Your task to perform on an android device: Open Android settings Image 0: 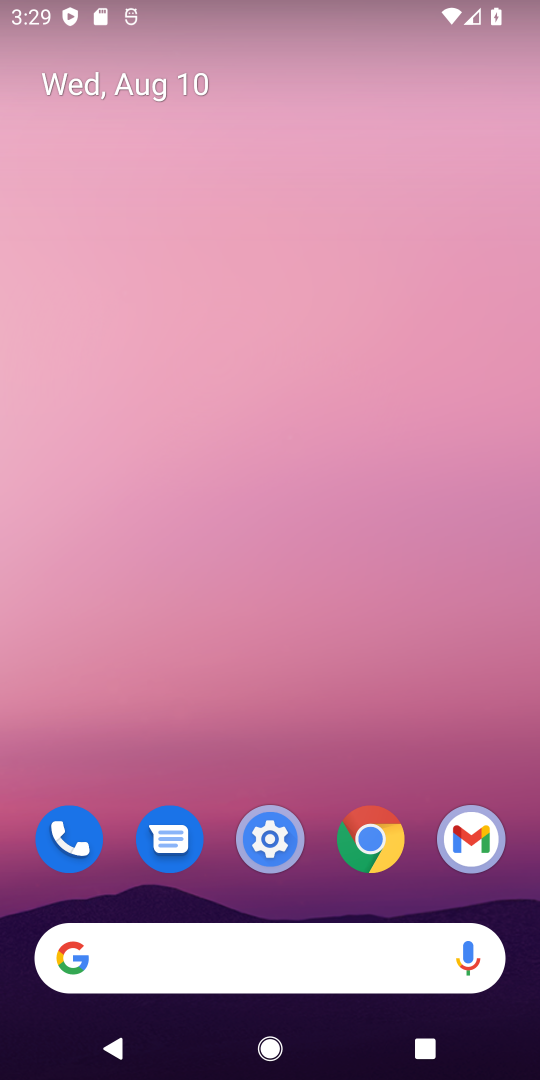
Step 0: click (264, 838)
Your task to perform on an android device: Open Android settings Image 1: 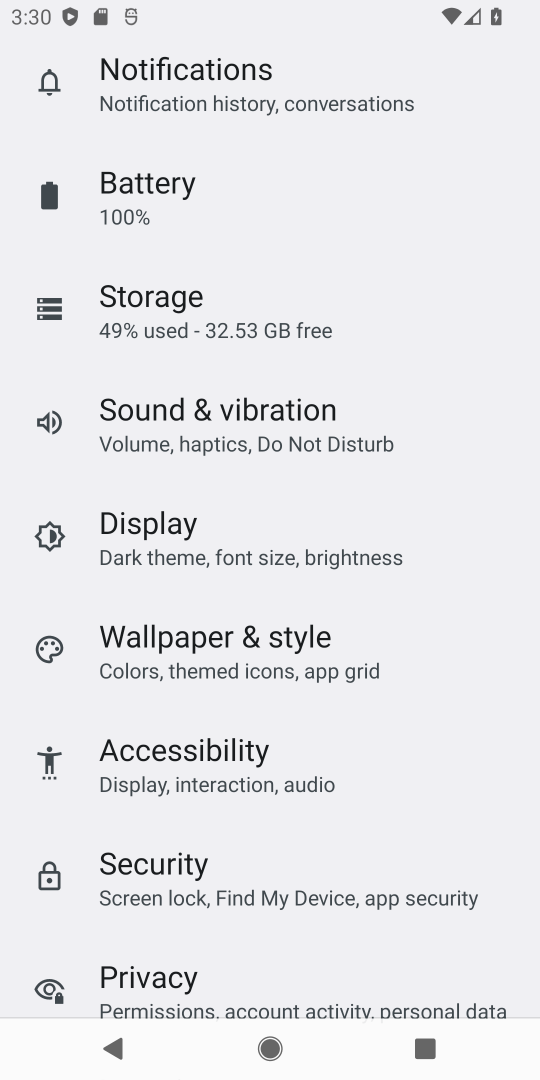
Step 1: drag from (268, 827) to (296, 43)
Your task to perform on an android device: Open Android settings Image 2: 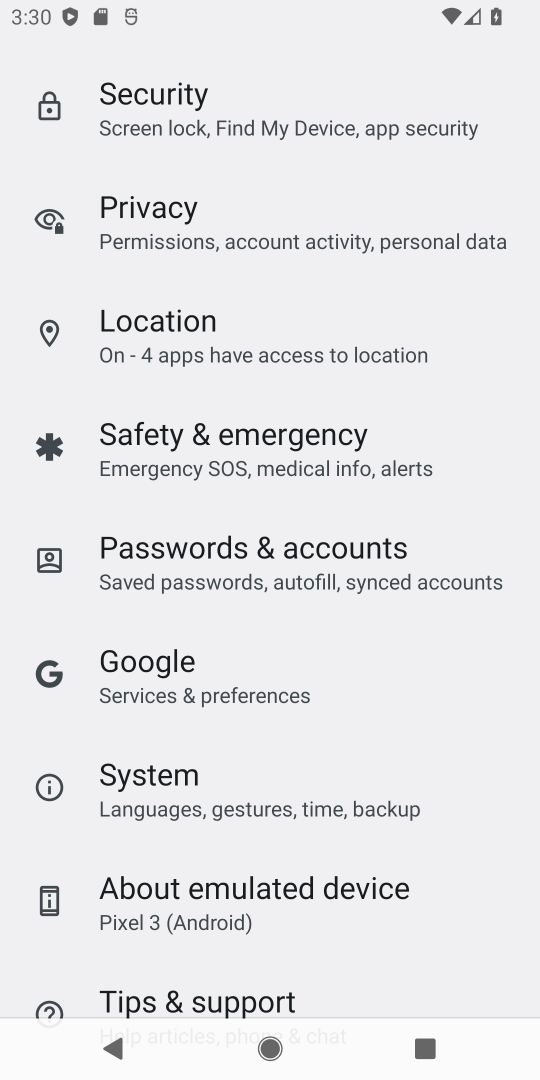
Step 2: drag from (319, 741) to (372, 336)
Your task to perform on an android device: Open Android settings Image 3: 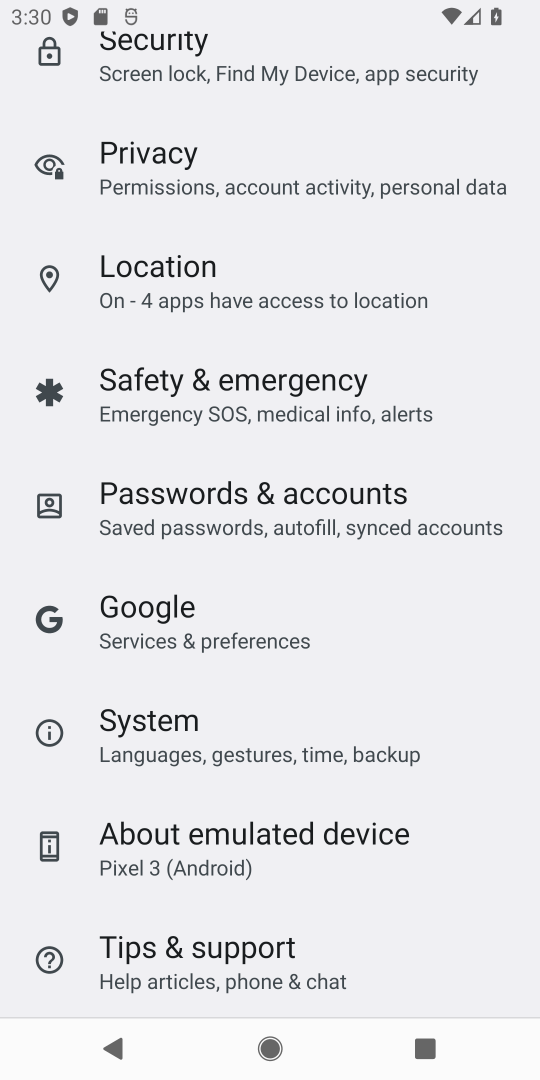
Step 3: click (240, 843)
Your task to perform on an android device: Open Android settings Image 4: 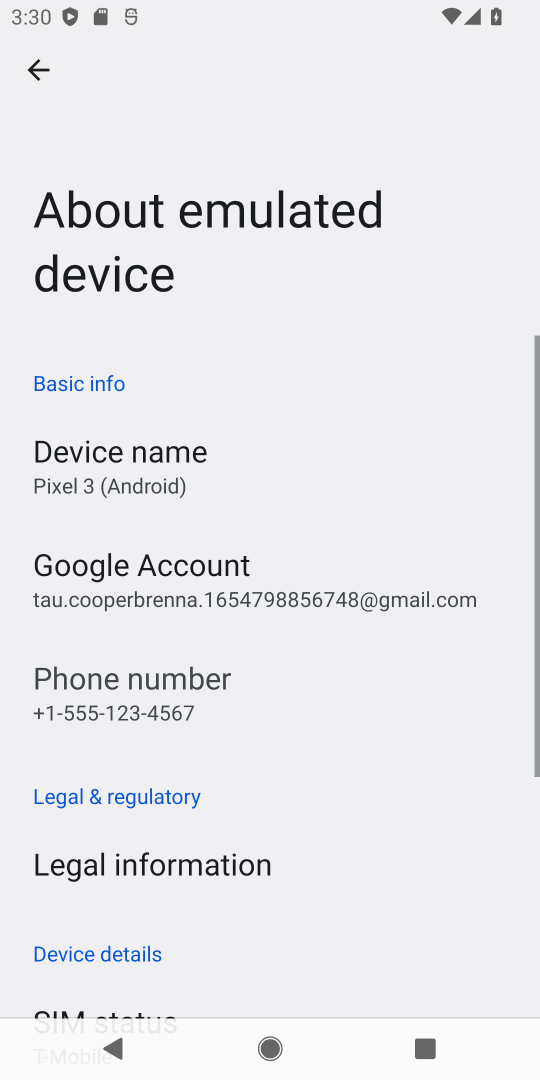
Step 4: task complete